Your task to perform on an android device: Open Google Image 0: 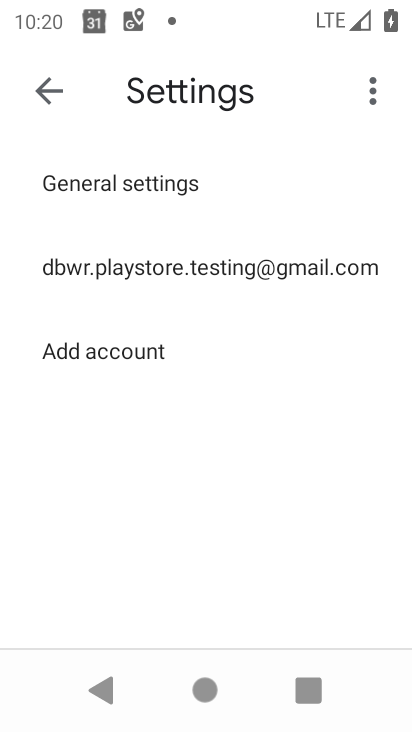
Step 0: press home button
Your task to perform on an android device: Open Google Image 1: 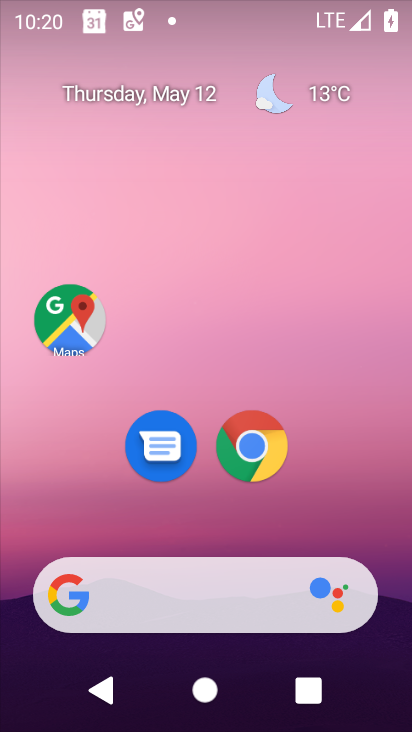
Step 1: drag from (246, 623) to (355, 4)
Your task to perform on an android device: Open Google Image 2: 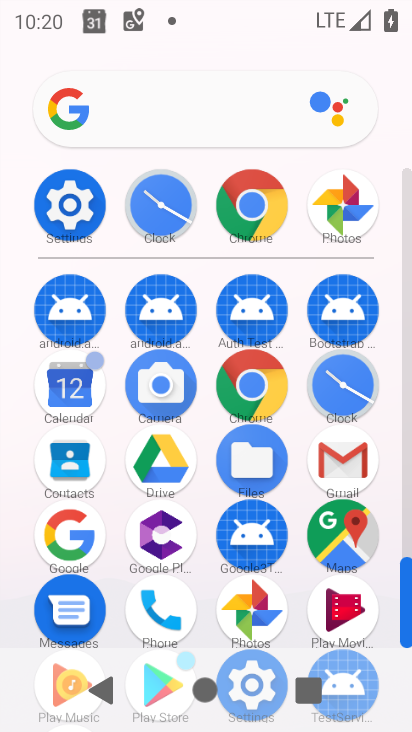
Step 2: click (261, 385)
Your task to perform on an android device: Open Google Image 3: 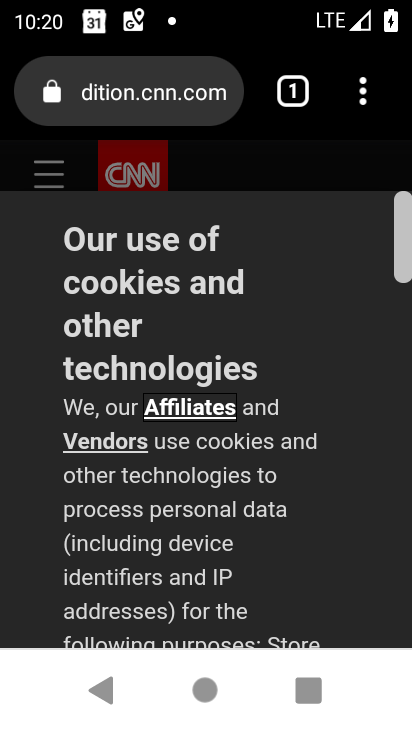
Step 3: task complete